Your task to perform on an android device: Search for pizza restaurants on Maps Image 0: 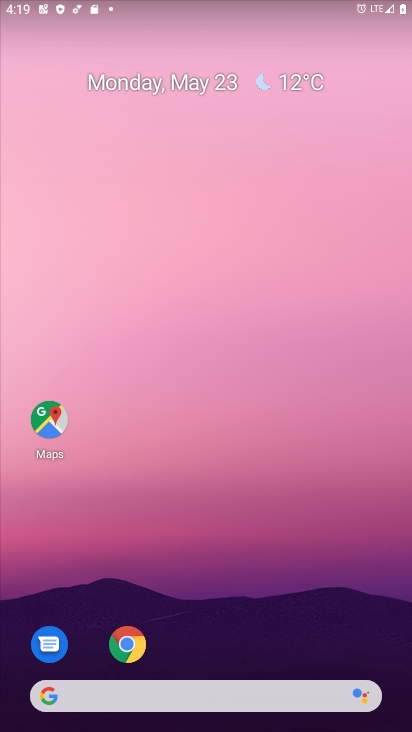
Step 0: click (41, 416)
Your task to perform on an android device: Search for pizza restaurants on Maps Image 1: 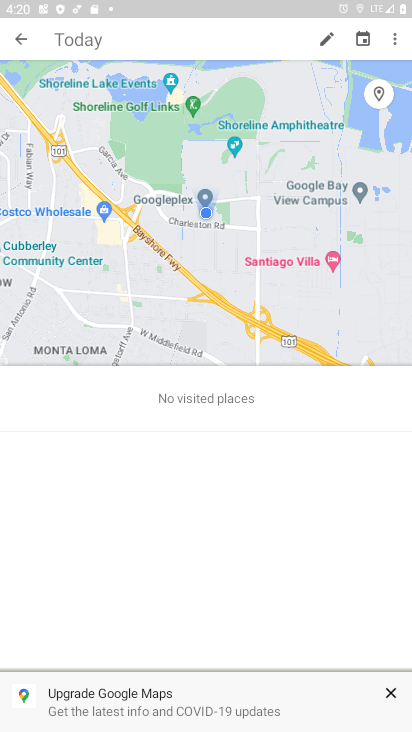
Step 1: click (17, 39)
Your task to perform on an android device: Search for pizza restaurants on Maps Image 2: 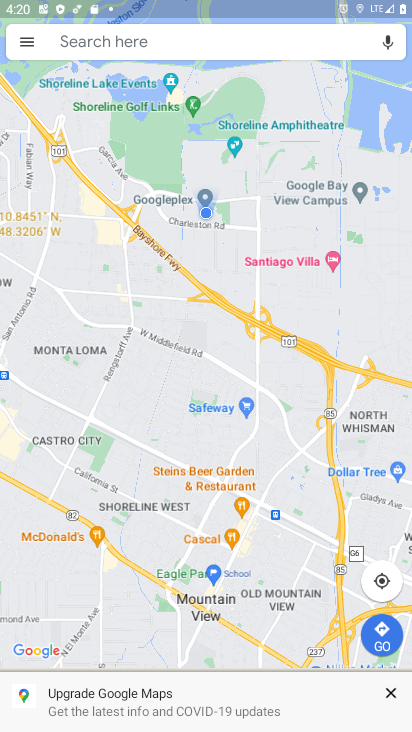
Step 2: click (104, 42)
Your task to perform on an android device: Search for pizza restaurants on Maps Image 3: 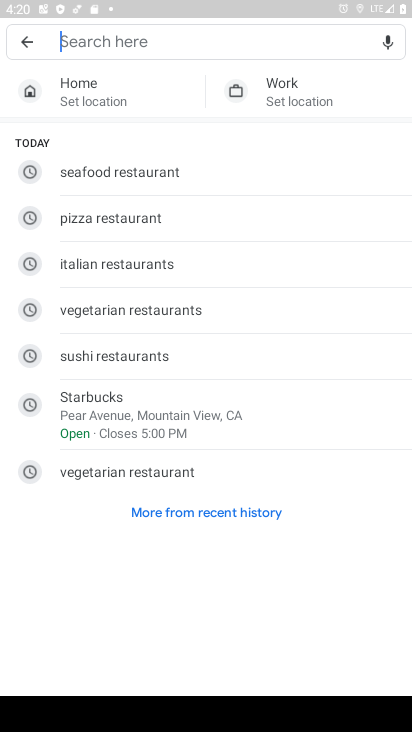
Step 3: click (153, 224)
Your task to perform on an android device: Search for pizza restaurants on Maps Image 4: 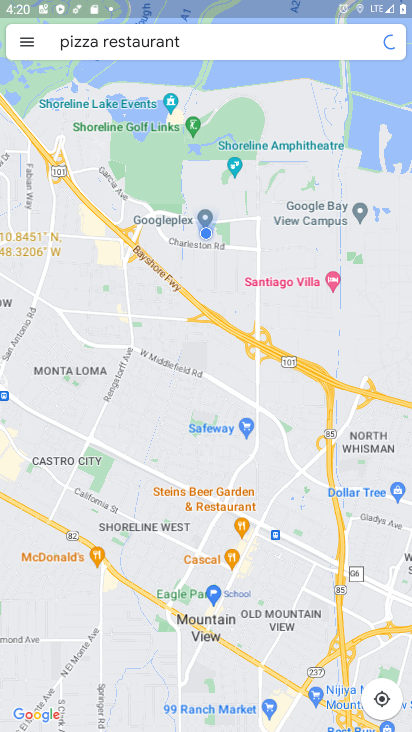
Step 4: task complete